Your task to perform on an android device: toggle data saver in the chrome app Image 0: 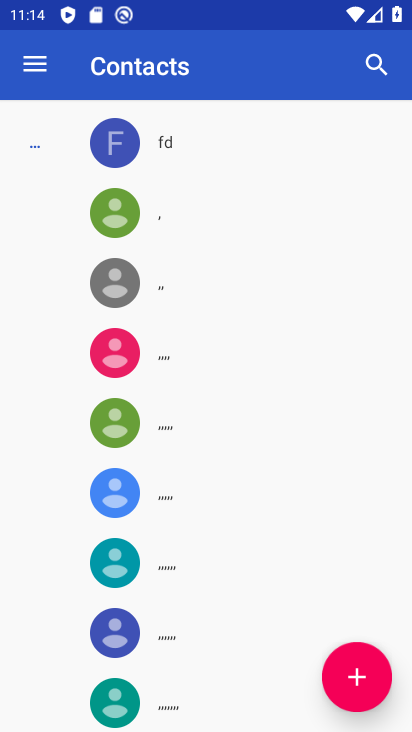
Step 0: press home button
Your task to perform on an android device: toggle data saver in the chrome app Image 1: 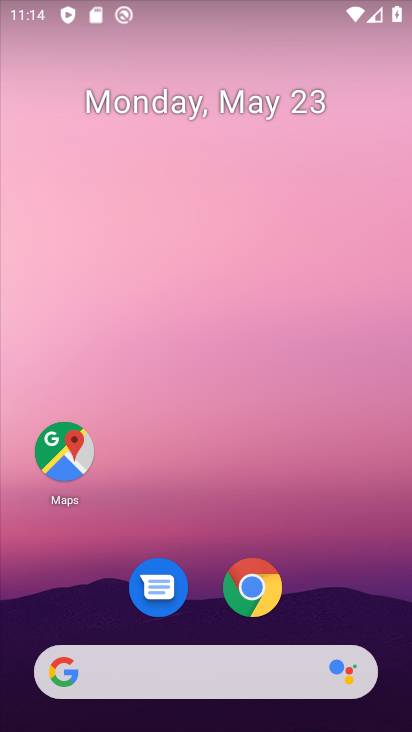
Step 1: click (269, 594)
Your task to perform on an android device: toggle data saver in the chrome app Image 2: 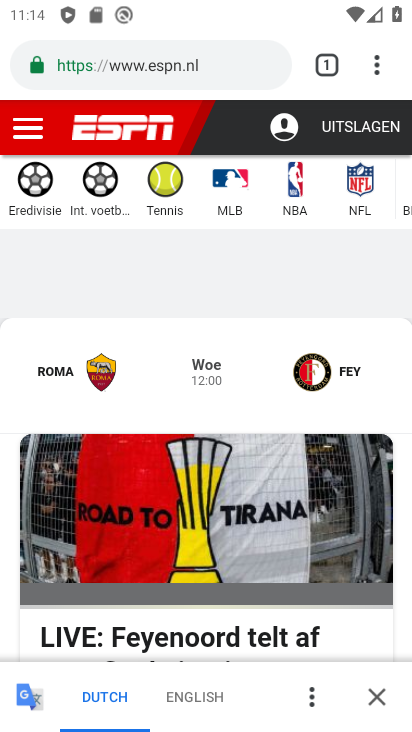
Step 2: click (378, 80)
Your task to perform on an android device: toggle data saver in the chrome app Image 3: 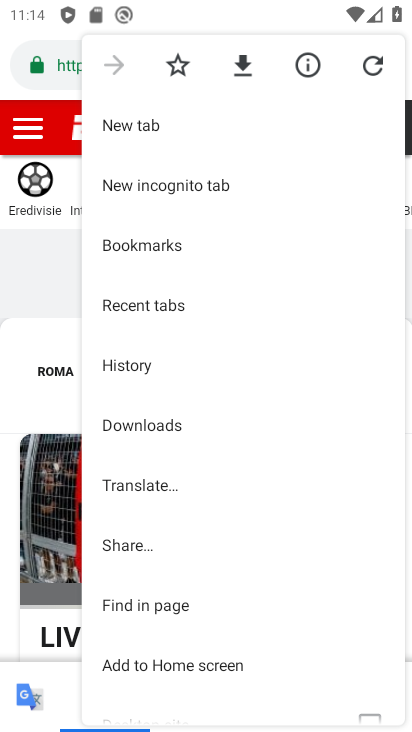
Step 3: drag from (259, 696) to (185, 362)
Your task to perform on an android device: toggle data saver in the chrome app Image 4: 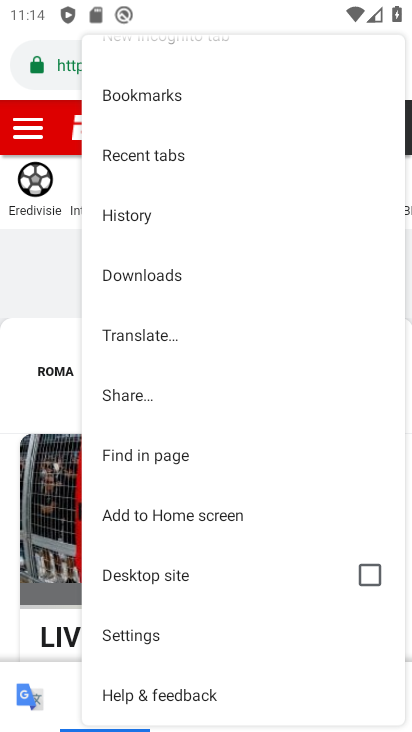
Step 4: click (164, 644)
Your task to perform on an android device: toggle data saver in the chrome app Image 5: 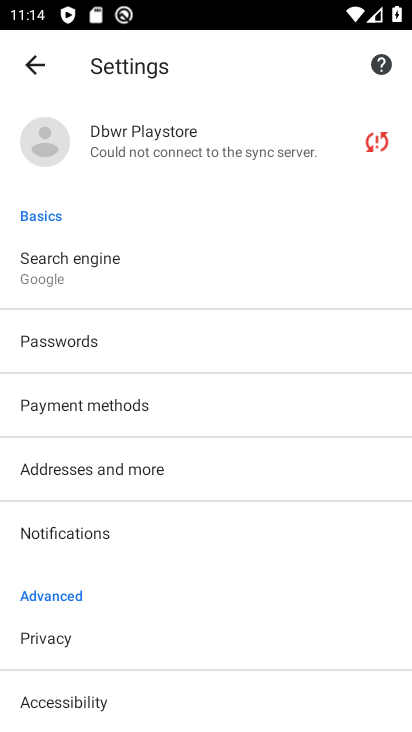
Step 5: drag from (187, 704) to (147, 258)
Your task to perform on an android device: toggle data saver in the chrome app Image 6: 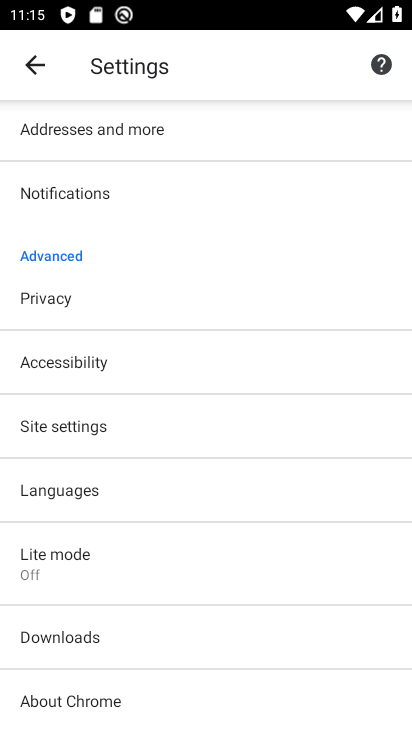
Step 6: click (133, 549)
Your task to perform on an android device: toggle data saver in the chrome app Image 7: 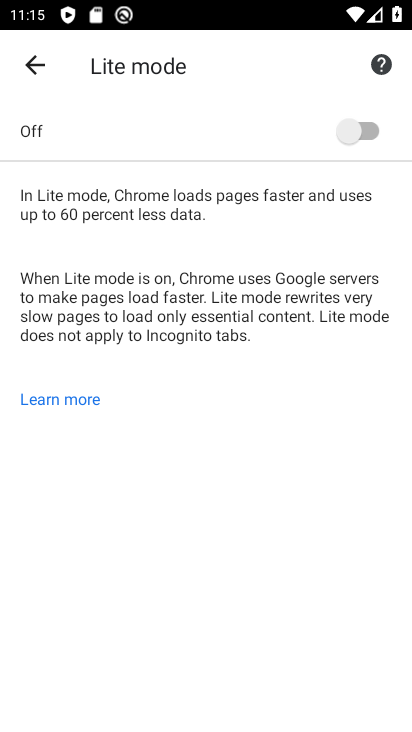
Step 7: click (364, 136)
Your task to perform on an android device: toggle data saver in the chrome app Image 8: 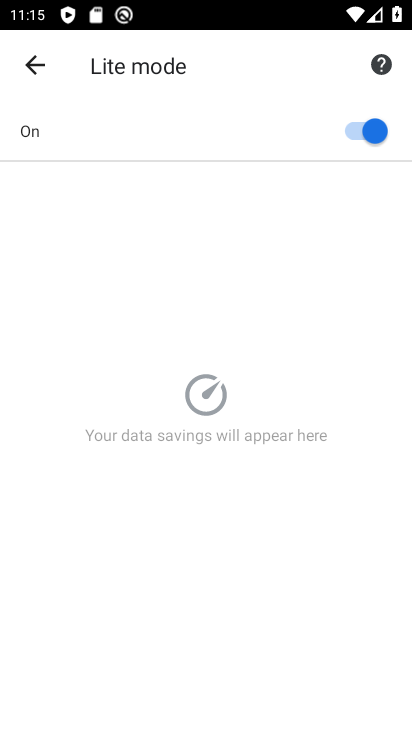
Step 8: task complete